Your task to perform on an android device: change notification settings in the gmail app Image 0: 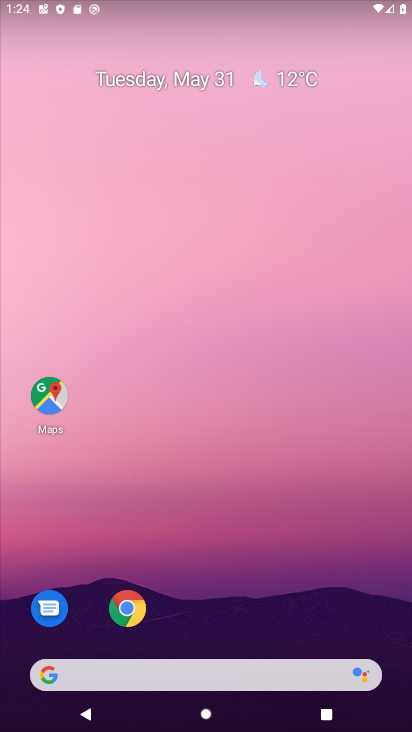
Step 0: drag from (237, 558) to (207, 153)
Your task to perform on an android device: change notification settings in the gmail app Image 1: 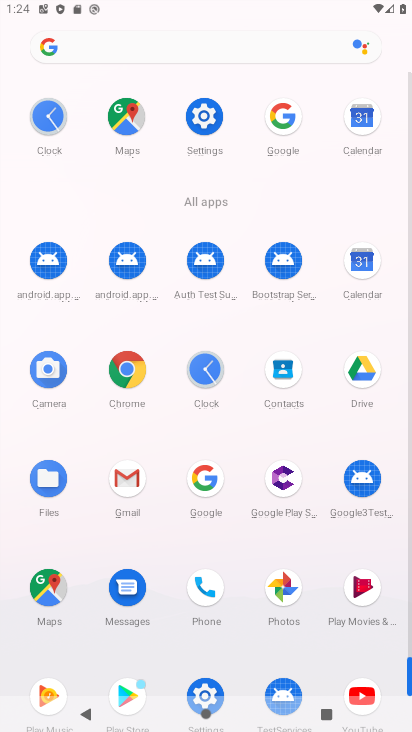
Step 1: click (135, 488)
Your task to perform on an android device: change notification settings in the gmail app Image 2: 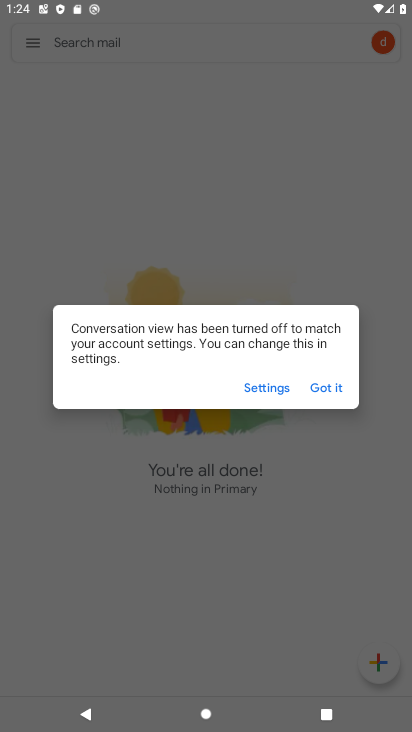
Step 2: click (339, 388)
Your task to perform on an android device: change notification settings in the gmail app Image 3: 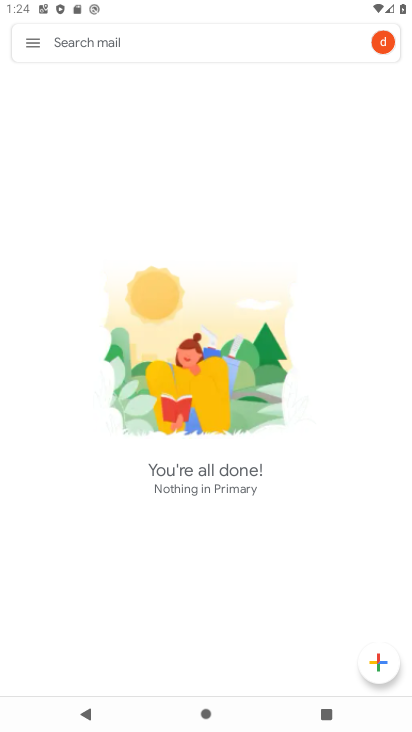
Step 3: click (30, 55)
Your task to perform on an android device: change notification settings in the gmail app Image 4: 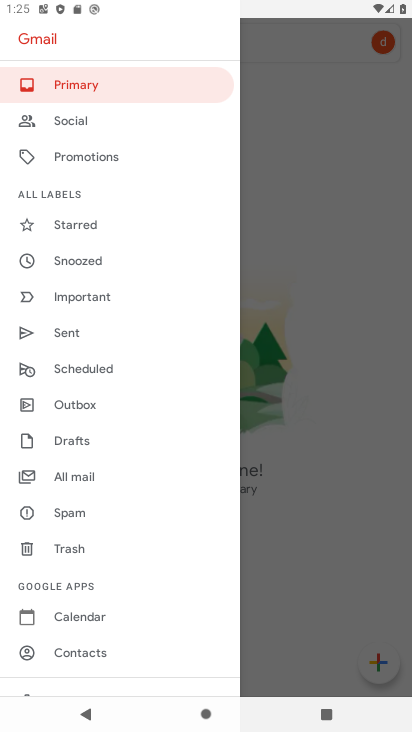
Step 4: drag from (126, 618) to (177, 287)
Your task to perform on an android device: change notification settings in the gmail app Image 5: 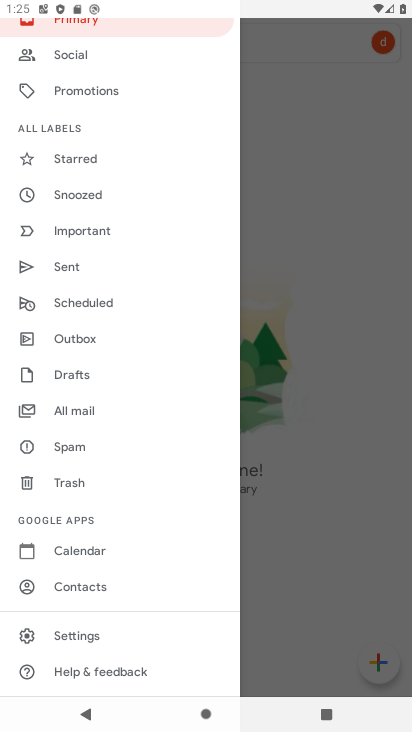
Step 5: click (116, 636)
Your task to perform on an android device: change notification settings in the gmail app Image 6: 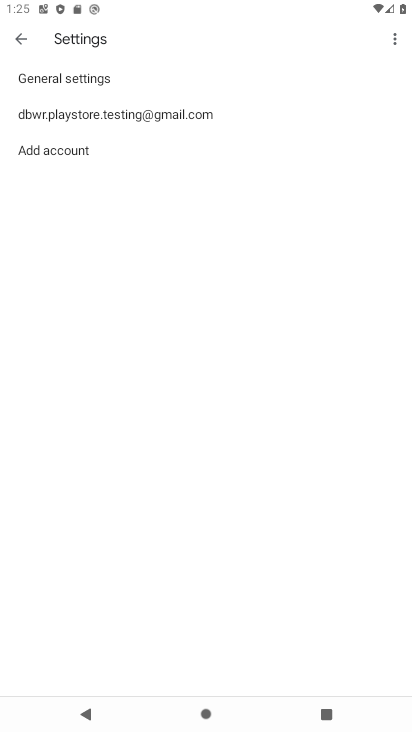
Step 6: click (142, 116)
Your task to perform on an android device: change notification settings in the gmail app Image 7: 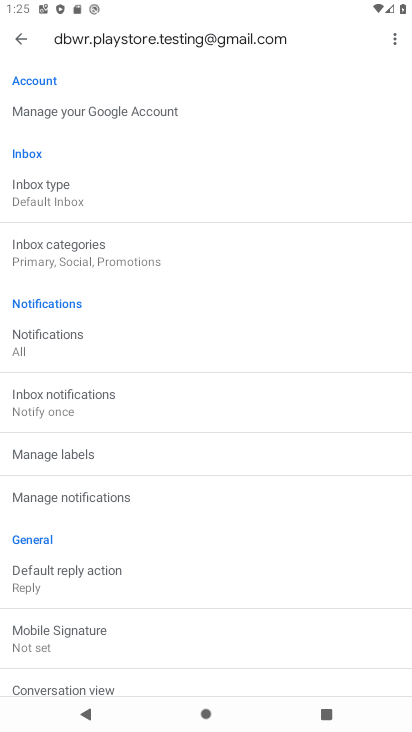
Step 7: drag from (198, 546) to (198, 383)
Your task to perform on an android device: change notification settings in the gmail app Image 8: 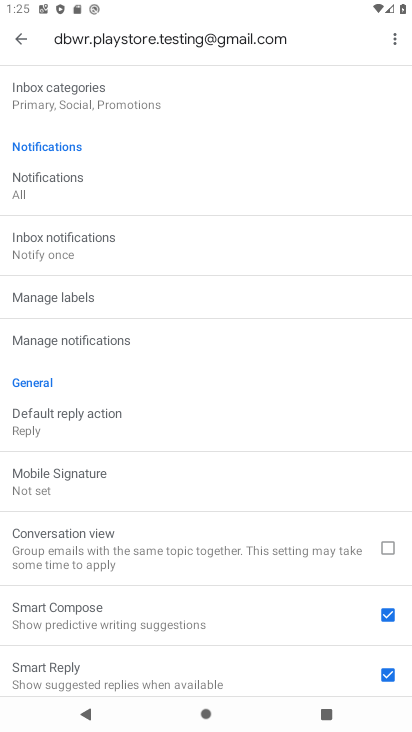
Step 8: click (115, 179)
Your task to perform on an android device: change notification settings in the gmail app Image 9: 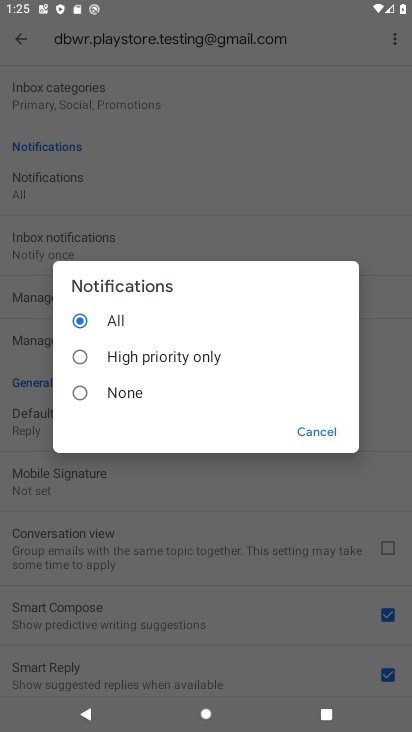
Step 9: click (150, 363)
Your task to perform on an android device: change notification settings in the gmail app Image 10: 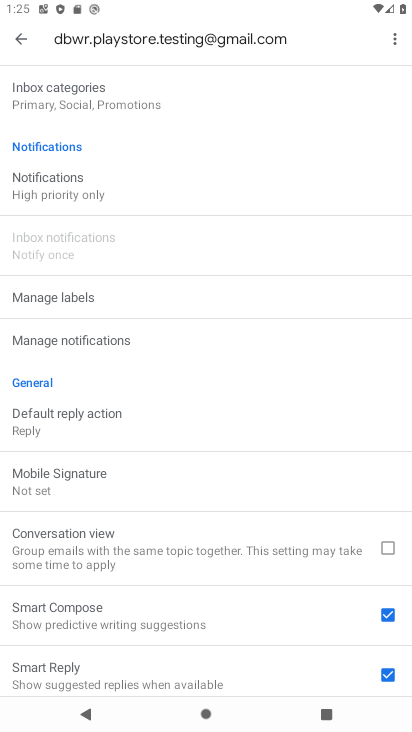
Step 10: task complete